Your task to perform on an android device: Open calendar and show me the first week of next month Image 0: 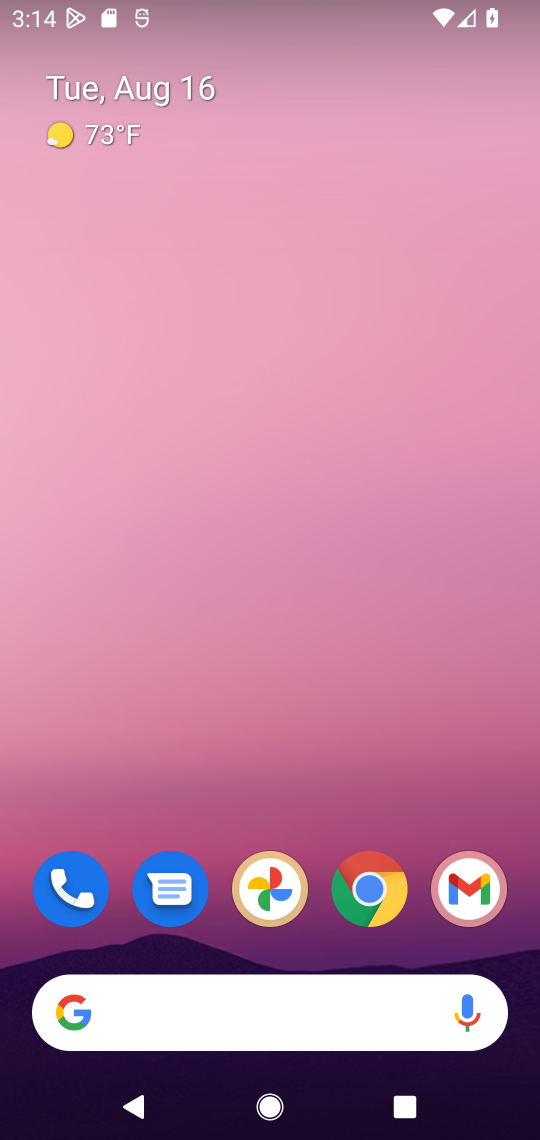
Step 0: drag from (367, 785) to (425, 114)
Your task to perform on an android device: Open calendar and show me the first week of next month Image 1: 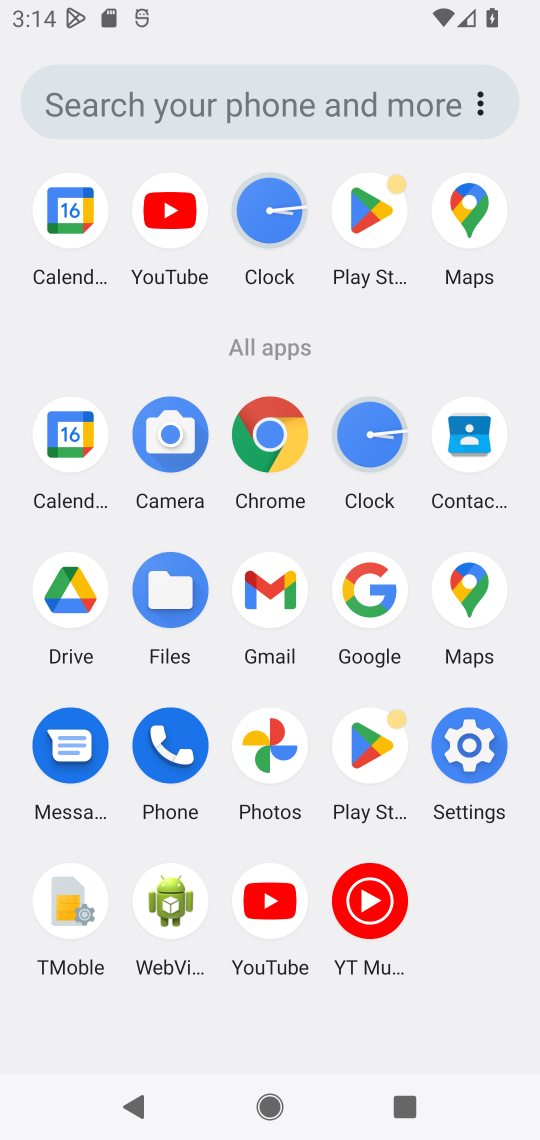
Step 1: click (50, 432)
Your task to perform on an android device: Open calendar and show me the first week of next month Image 2: 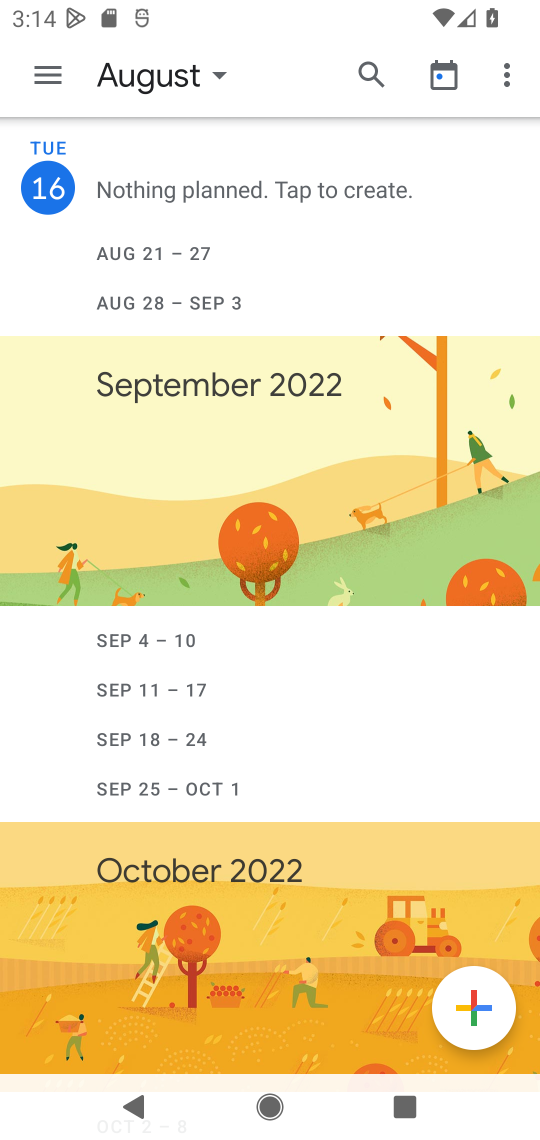
Step 2: task complete